Your task to perform on an android device: show emergency info Image 0: 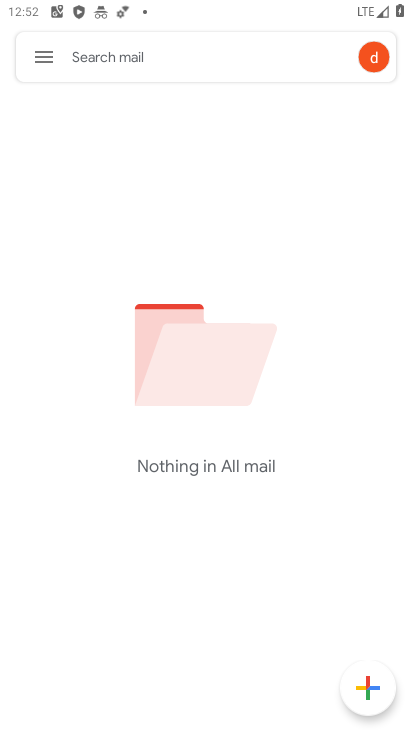
Step 0: press home button
Your task to perform on an android device: show emergency info Image 1: 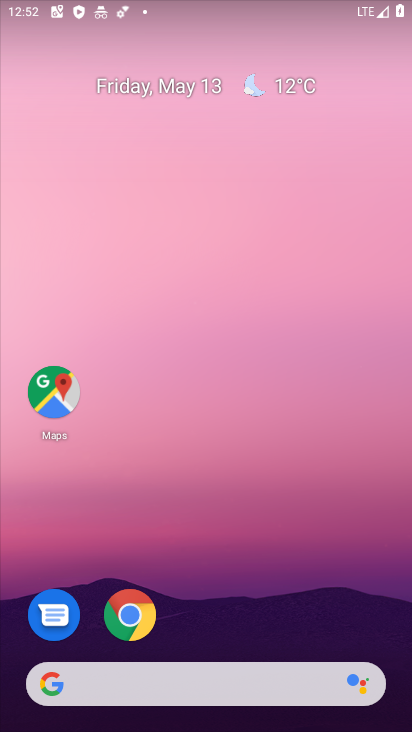
Step 1: drag from (273, 603) to (256, 270)
Your task to perform on an android device: show emergency info Image 2: 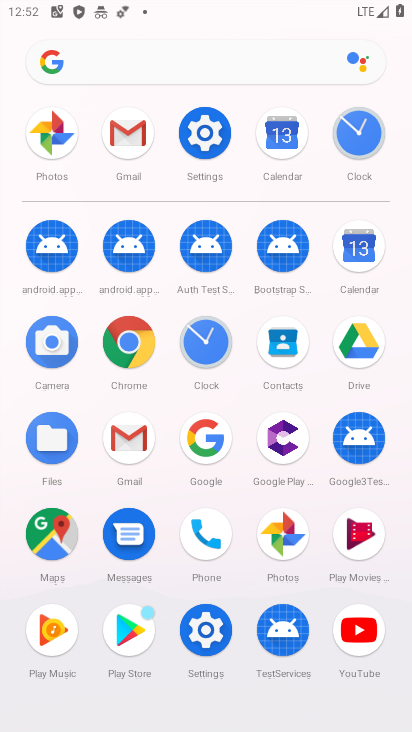
Step 2: click (199, 148)
Your task to perform on an android device: show emergency info Image 3: 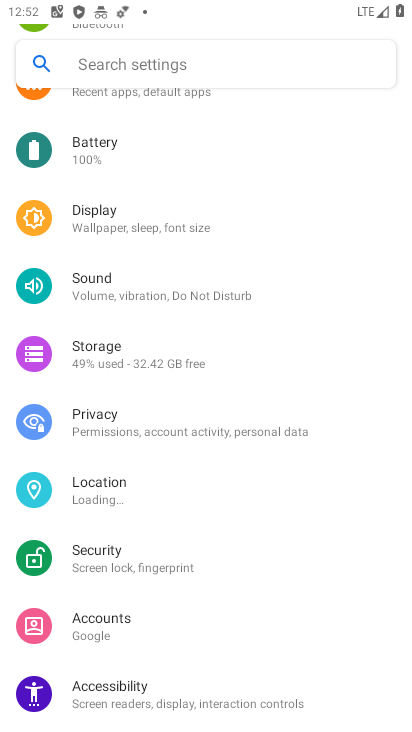
Step 3: drag from (238, 604) to (242, 280)
Your task to perform on an android device: show emergency info Image 4: 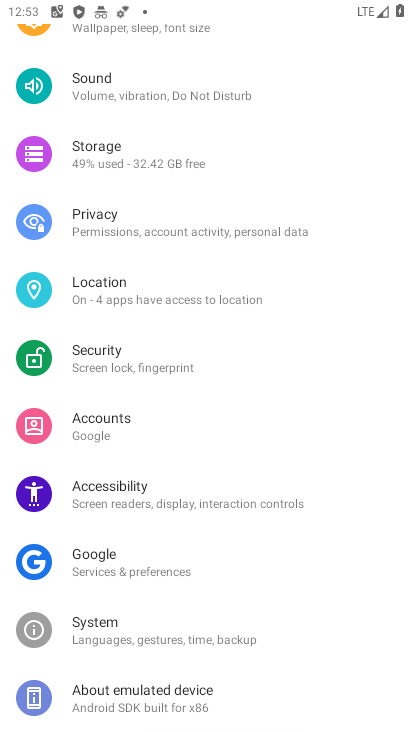
Step 4: drag from (232, 567) to (233, 278)
Your task to perform on an android device: show emergency info Image 5: 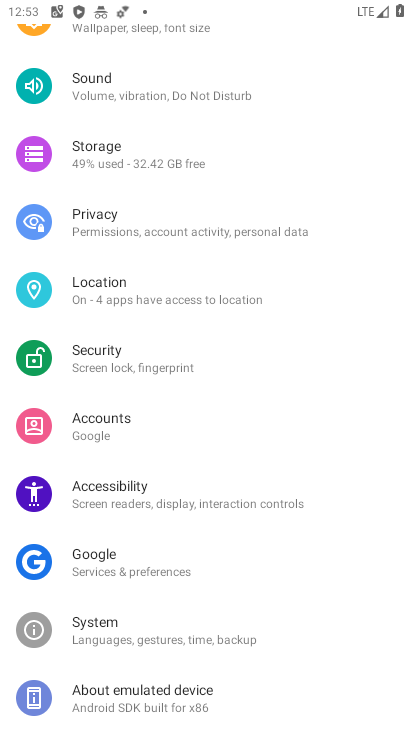
Step 5: click (186, 686)
Your task to perform on an android device: show emergency info Image 6: 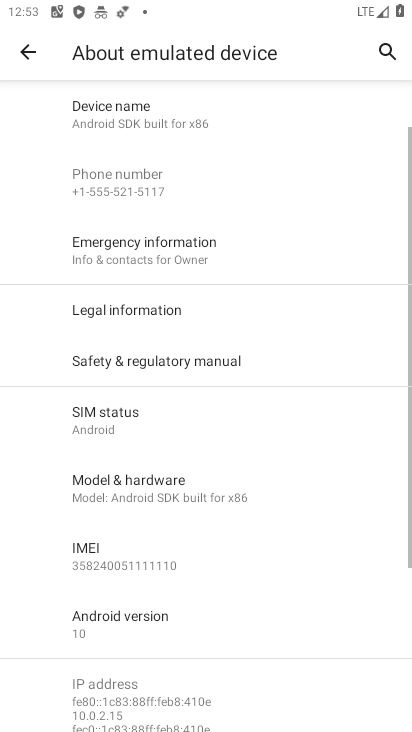
Step 6: click (147, 266)
Your task to perform on an android device: show emergency info Image 7: 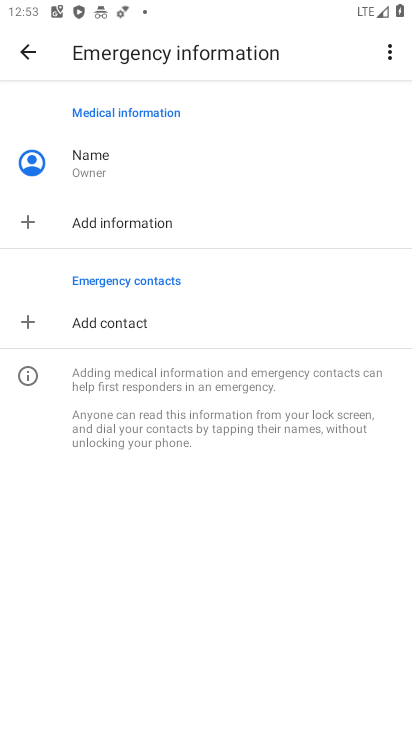
Step 7: task complete